Your task to perform on an android device: empty trash in google photos Image 0: 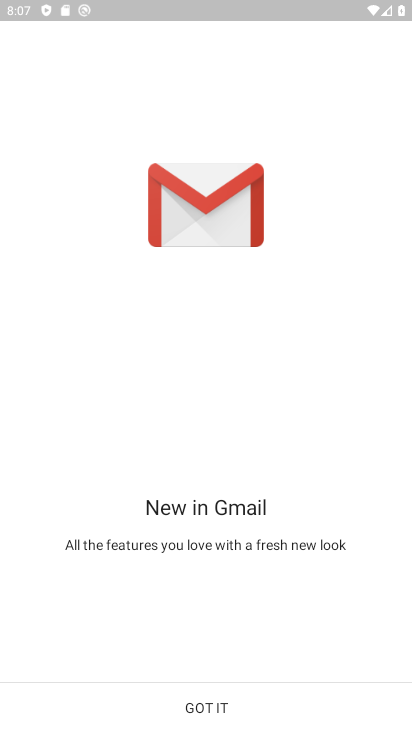
Step 0: press home button
Your task to perform on an android device: empty trash in google photos Image 1: 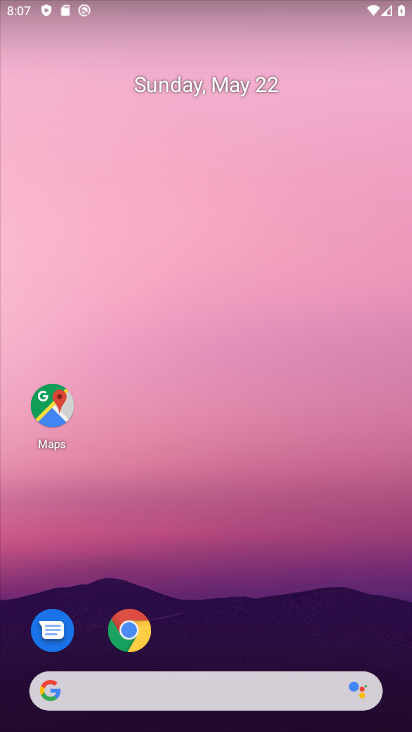
Step 1: drag from (148, 686) to (284, 237)
Your task to perform on an android device: empty trash in google photos Image 2: 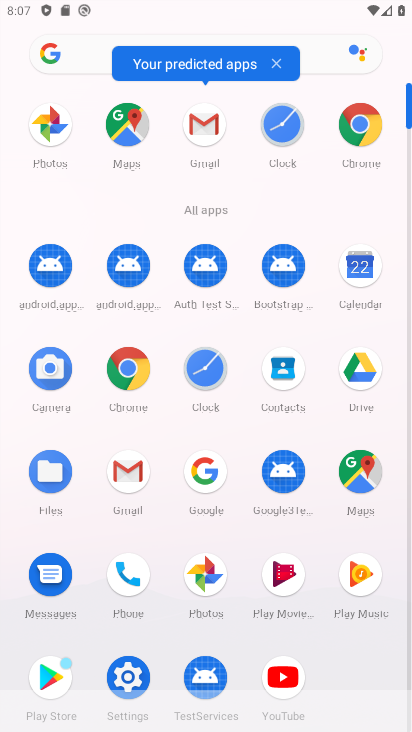
Step 2: click (205, 586)
Your task to perform on an android device: empty trash in google photos Image 3: 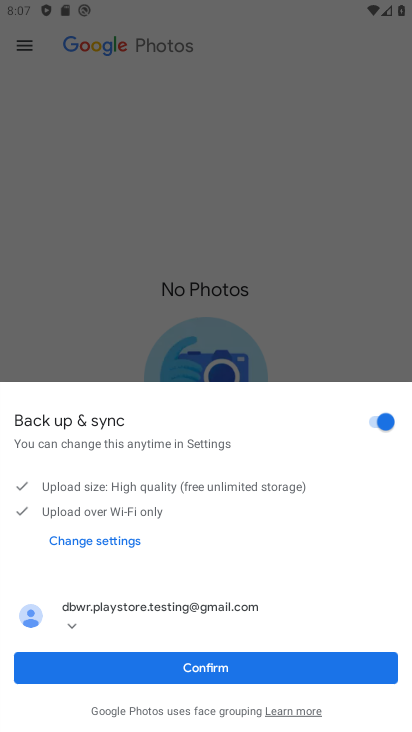
Step 3: click (219, 667)
Your task to perform on an android device: empty trash in google photos Image 4: 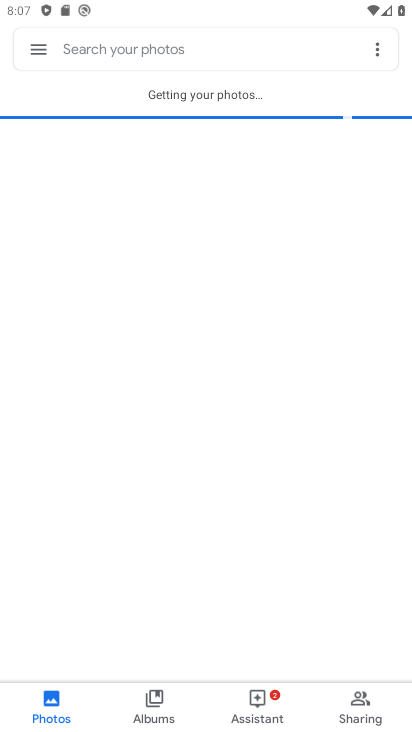
Step 4: click (31, 42)
Your task to perform on an android device: empty trash in google photos Image 5: 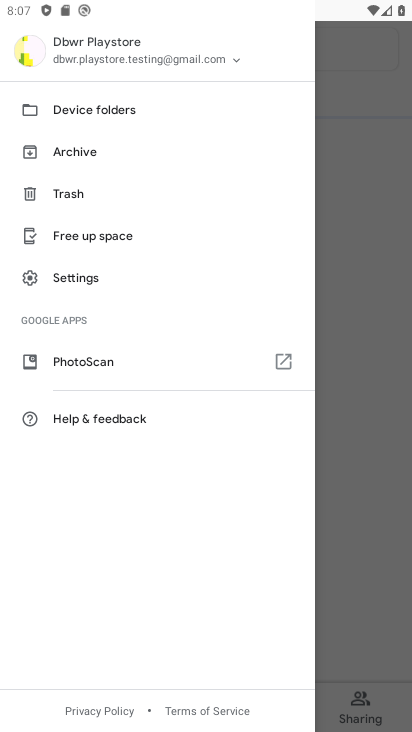
Step 5: click (78, 195)
Your task to perform on an android device: empty trash in google photos Image 6: 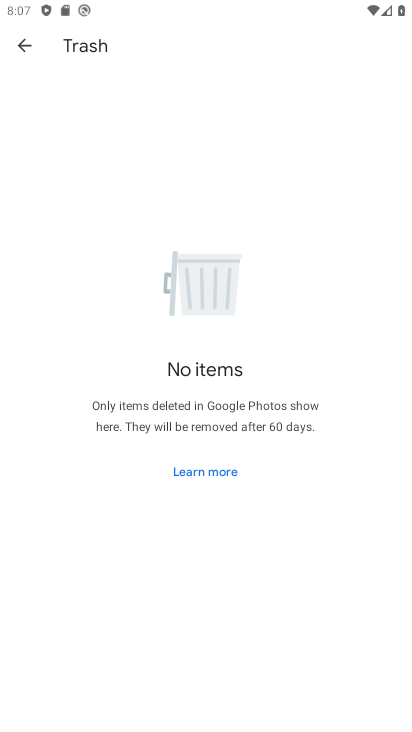
Step 6: task complete